Your task to perform on an android device: Check the weather Image 0: 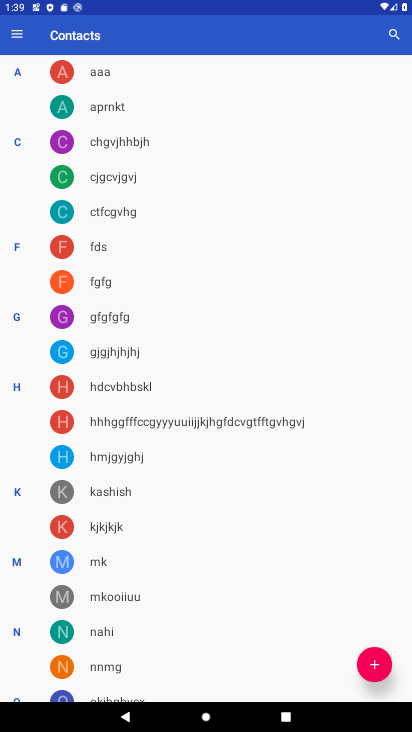
Step 0: press back button
Your task to perform on an android device: Check the weather Image 1: 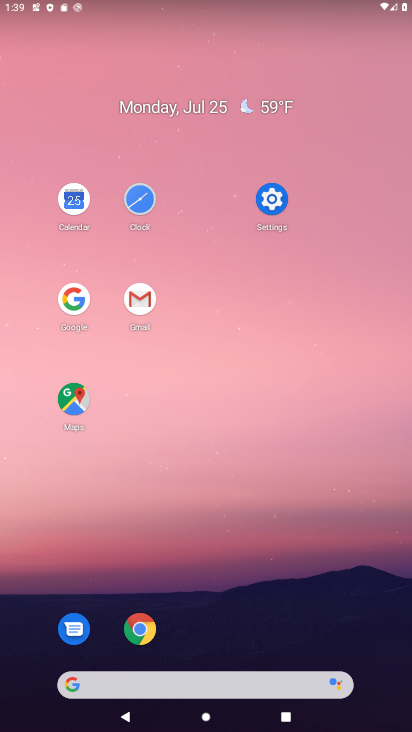
Step 1: click (80, 296)
Your task to perform on an android device: Check the weather Image 2: 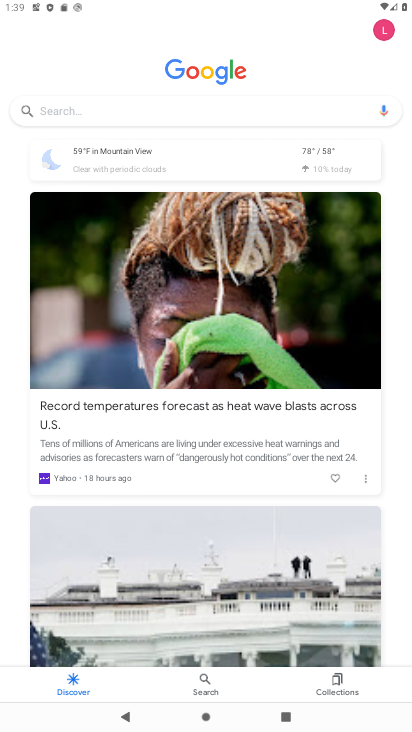
Step 2: click (123, 112)
Your task to perform on an android device: Check the weather Image 3: 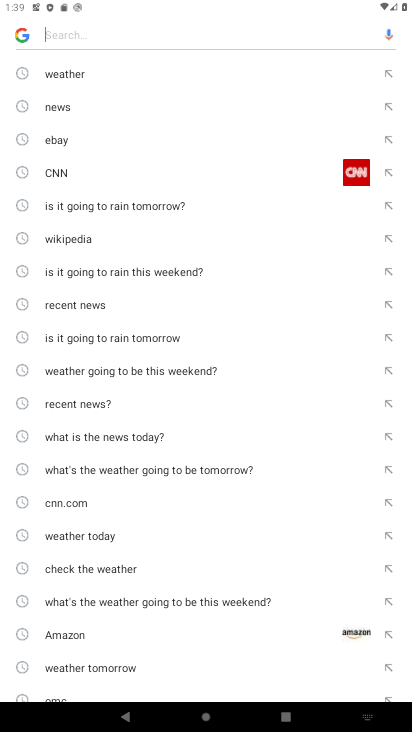
Step 3: click (111, 75)
Your task to perform on an android device: Check the weather Image 4: 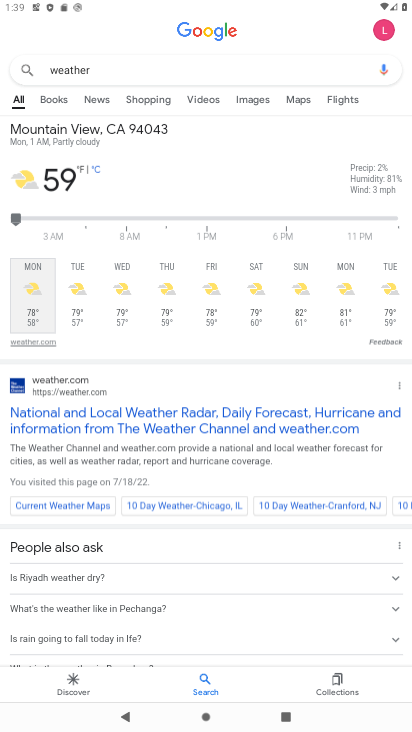
Step 4: task complete